Your task to perform on an android device: Open Google Chrome and click the shortcut for Amazon.com Image 0: 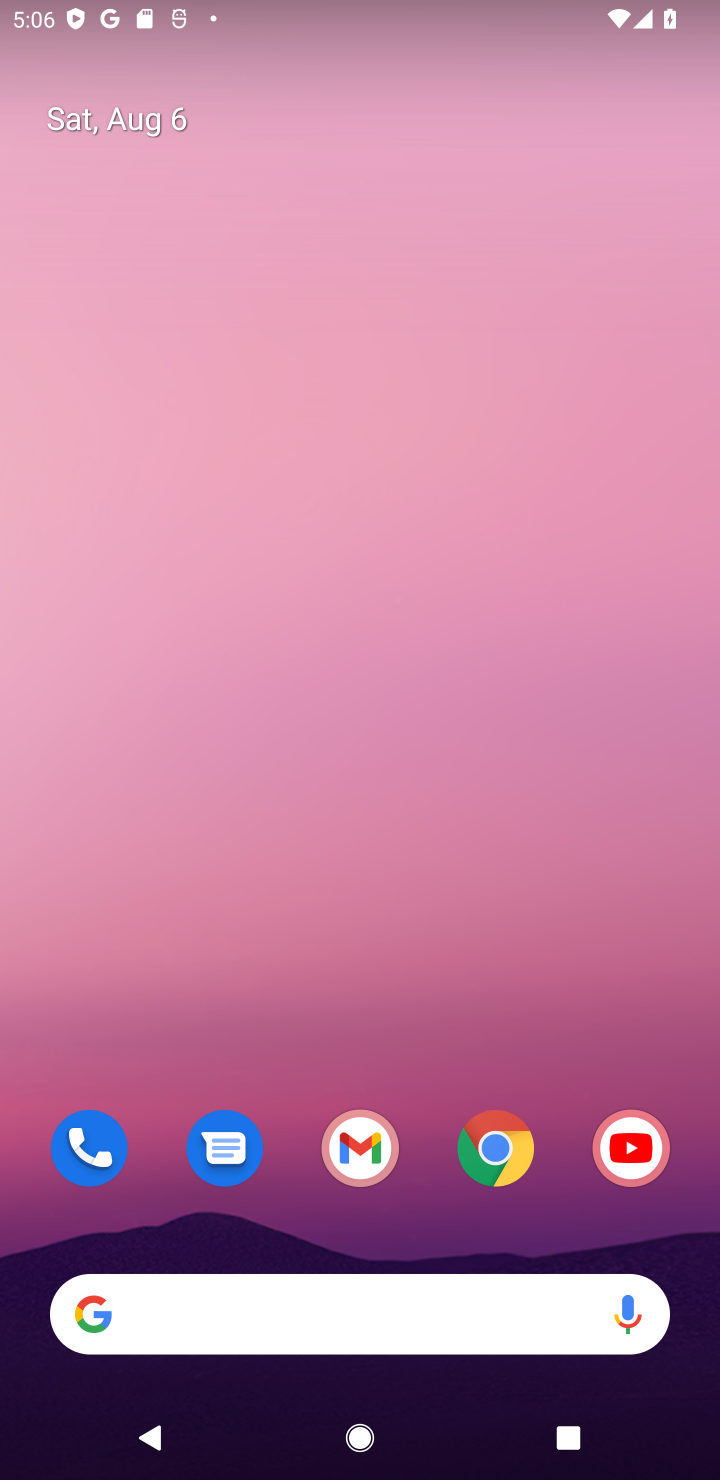
Step 0: drag from (334, 1080) to (306, 34)
Your task to perform on an android device: Open Google Chrome and click the shortcut for Amazon.com Image 1: 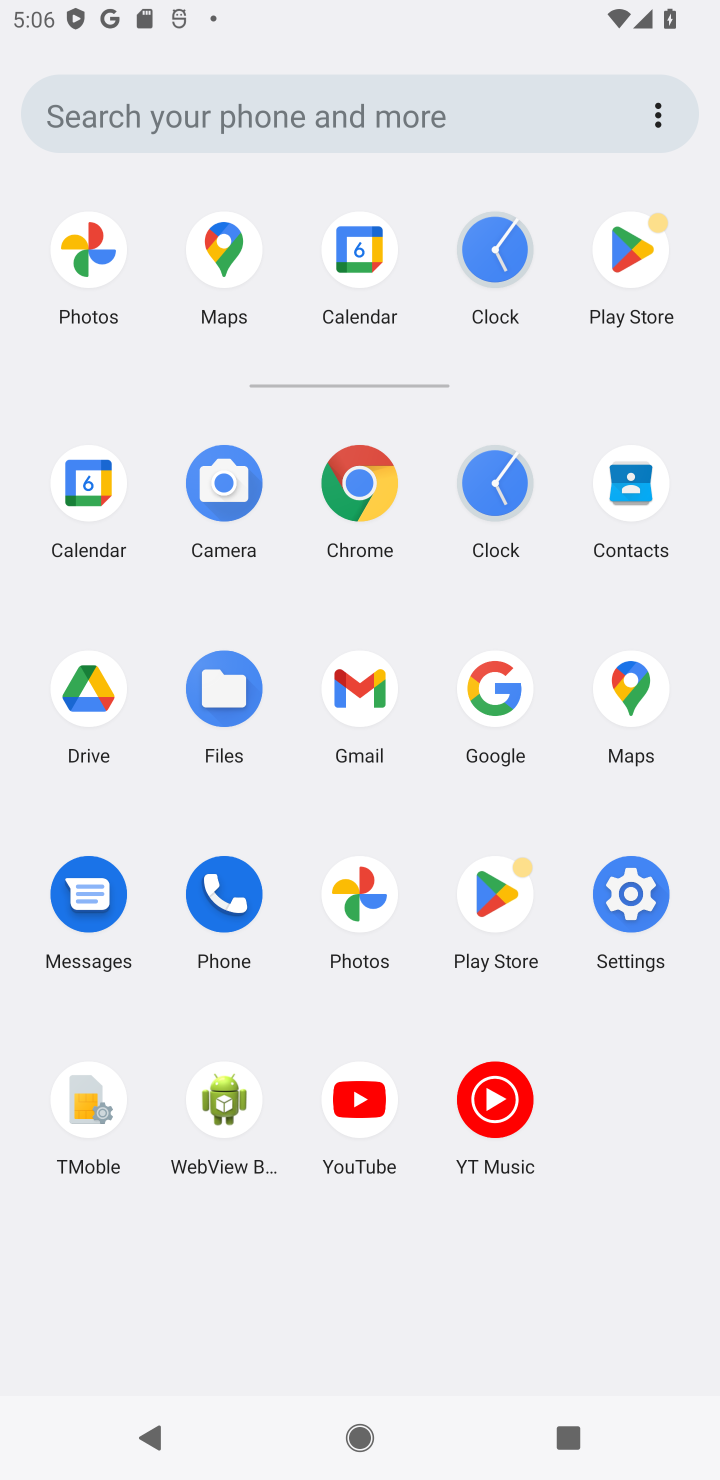
Step 1: click (378, 497)
Your task to perform on an android device: Open Google Chrome and click the shortcut for Amazon.com Image 2: 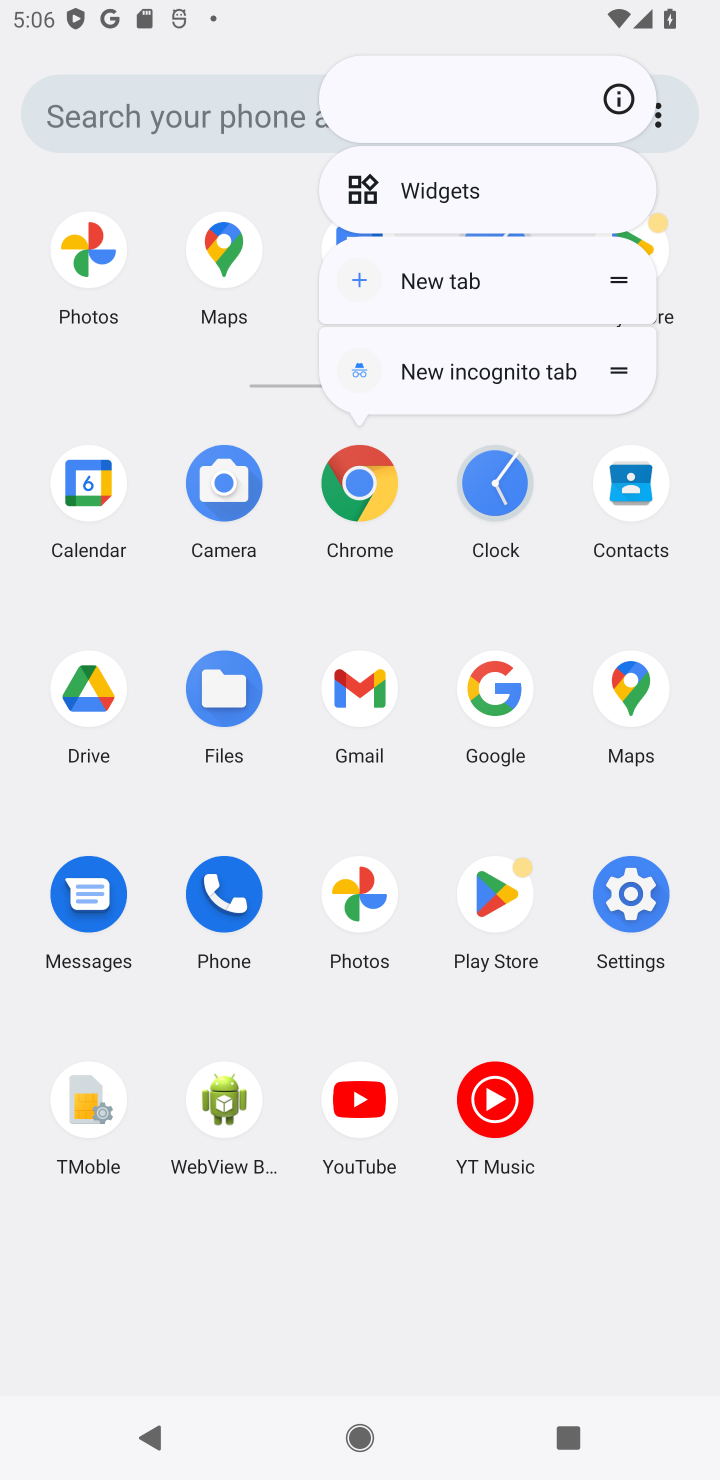
Step 2: click (348, 501)
Your task to perform on an android device: Open Google Chrome and click the shortcut for Amazon.com Image 3: 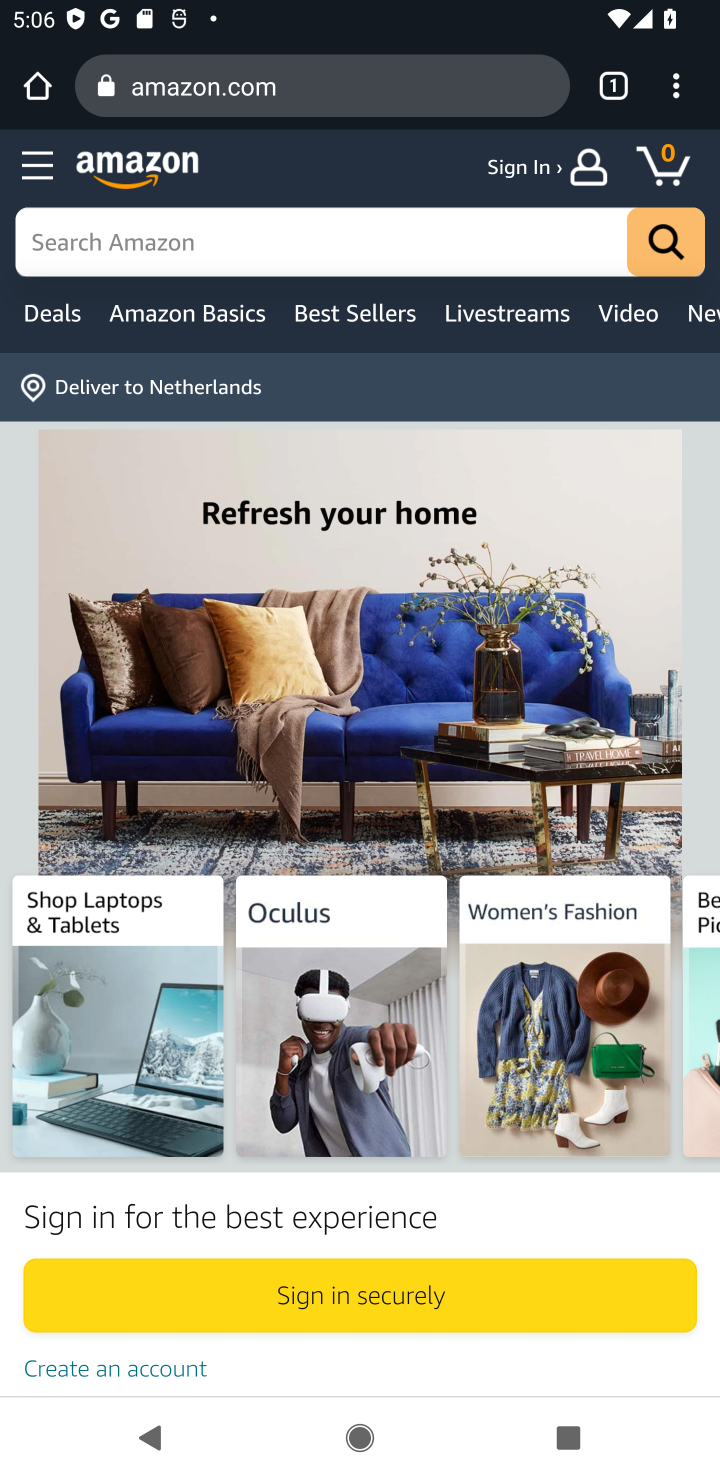
Step 3: task complete